Your task to perform on an android device: Clear the shopping cart on ebay.com. Add jbl flip 4 to the cart on ebay.com Image 0: 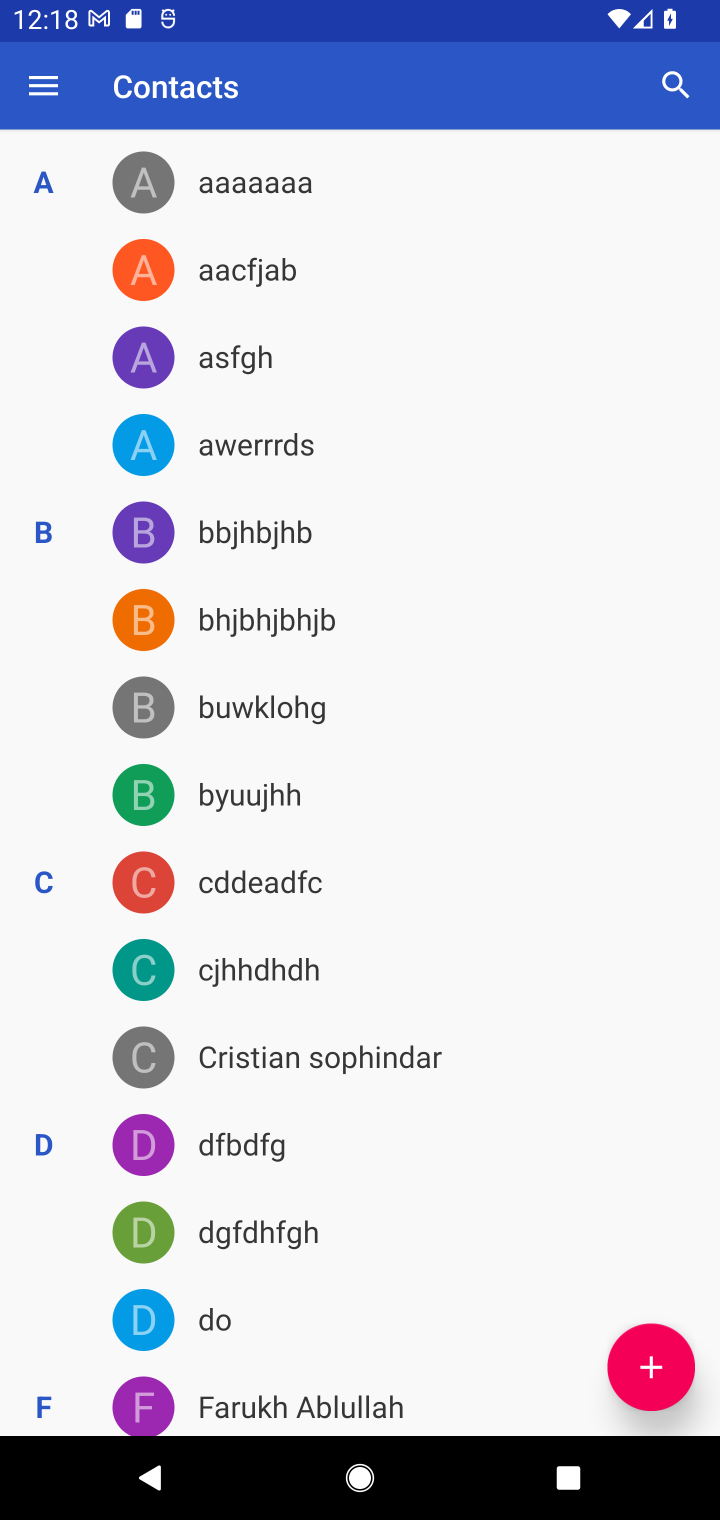
Step 0: press home button
Your task to perform on an android device: Clear the shopping cart on ebay.com. Add jbl flip 4 to the cart on ebay.com Image 1: 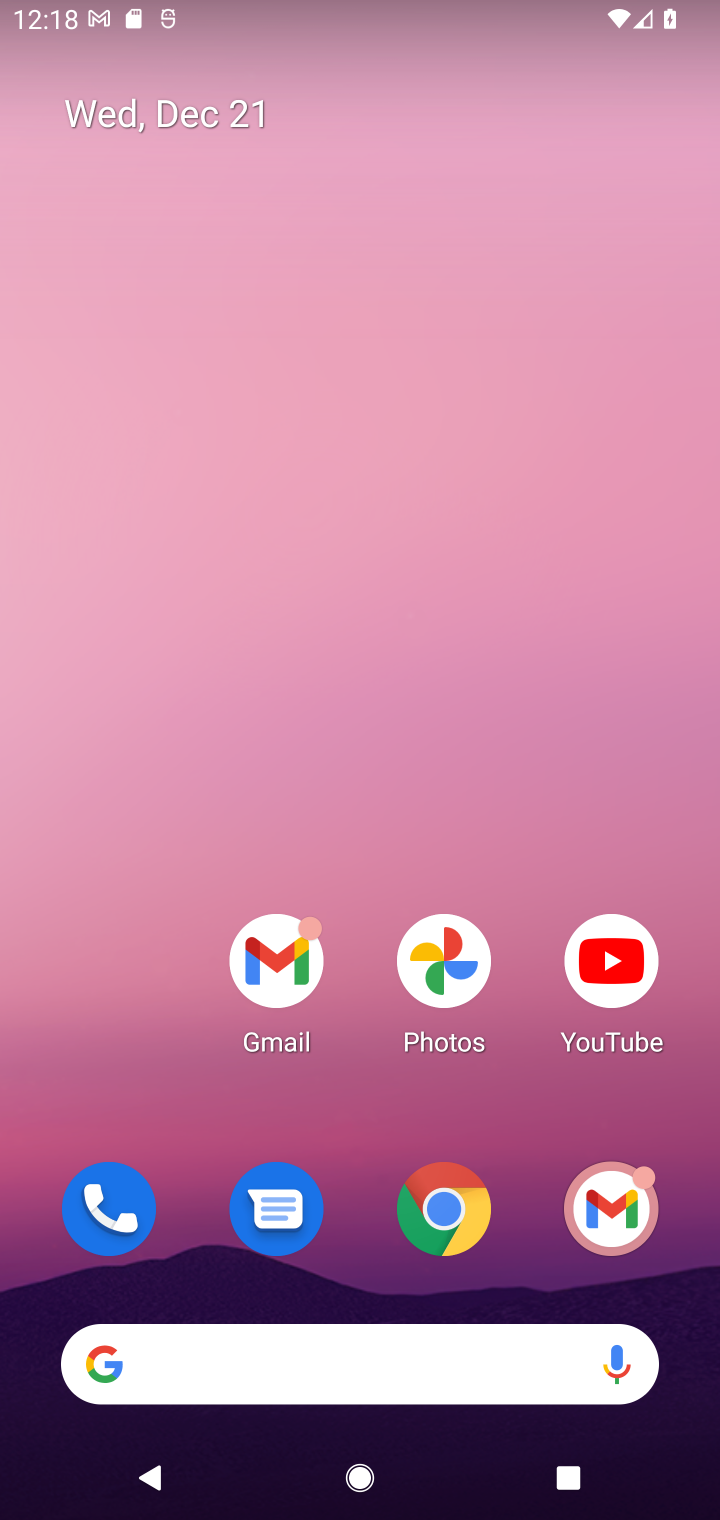
Step 1: click (455, 1222)
Your task to perform on an android device: Clear the shopping cart on ebay.com. Add jbl flip 4 to the cart on ebay.com Image 2: 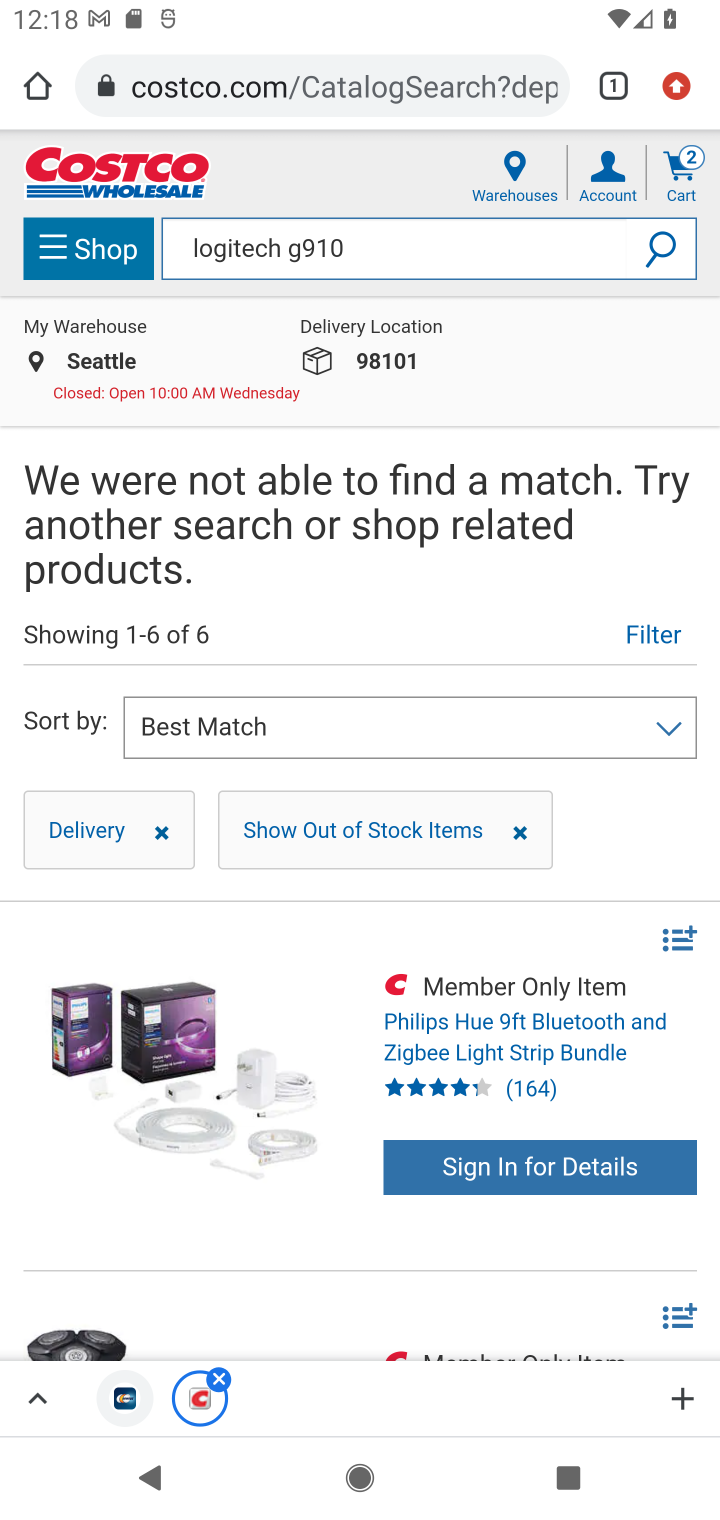
Step 2: click (222, 93)
Your task to perform on an android device: Clear the shopping cart on ebay.com. Add jbl flip 4 to the cart on ebay.com Image 3: 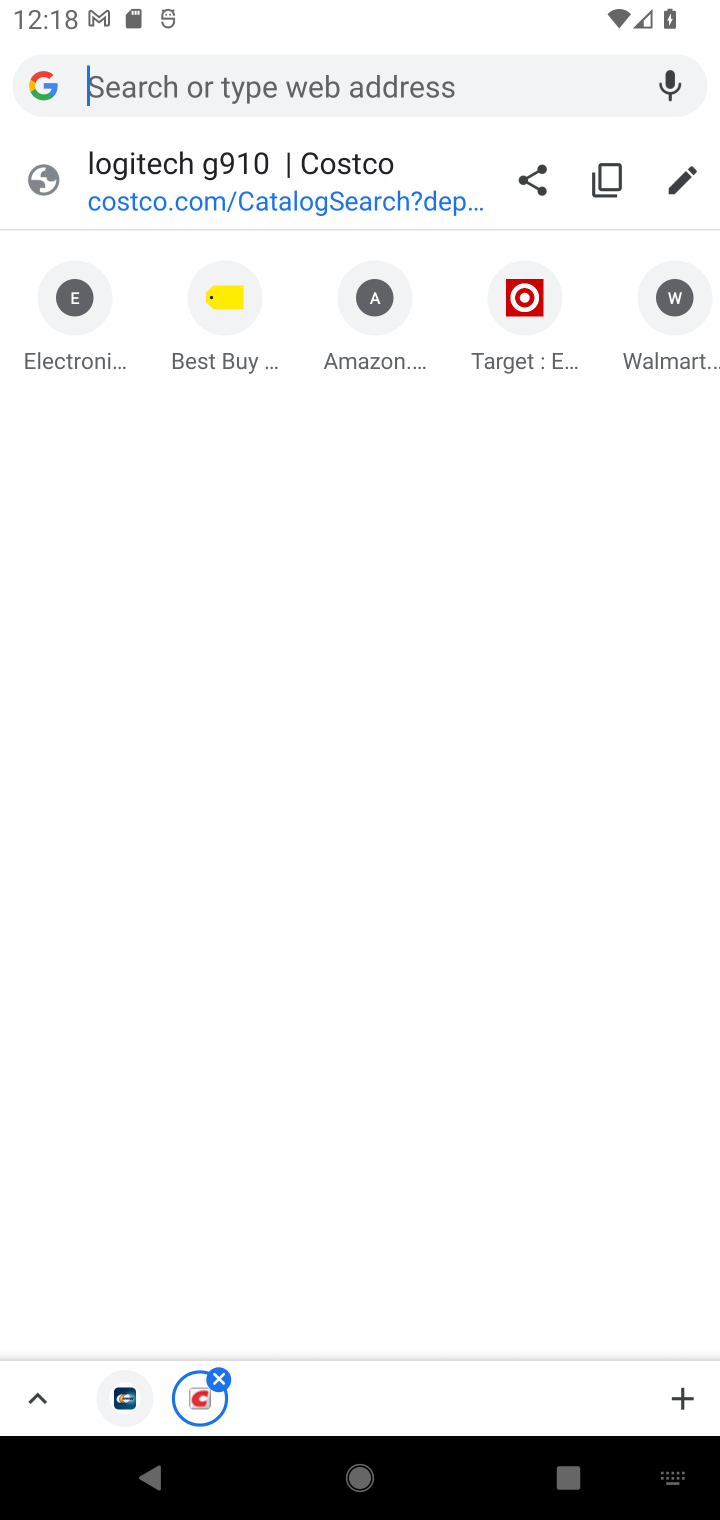
Step 3: type "ebay.com"
Your task to perform on an android device: Clear the shopping cart on ebay.com. Add jbl flip 4 to the cart on ebay.com Image 4: 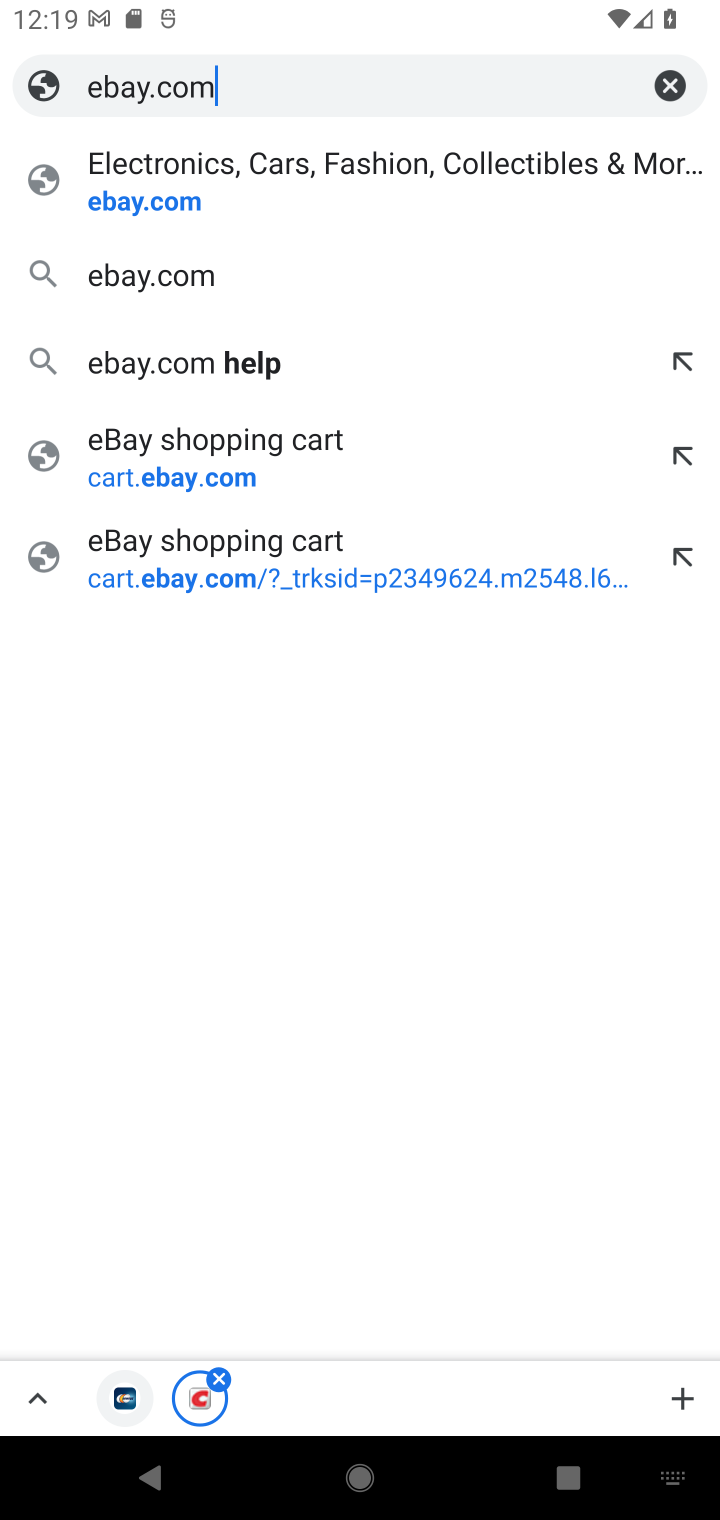
Step 4: click (125, 217)
Your task to perform on an android device: Clear the shopping cart on ebay.com. Add jbl flip 4 to the cart on ebay.com Image 5: 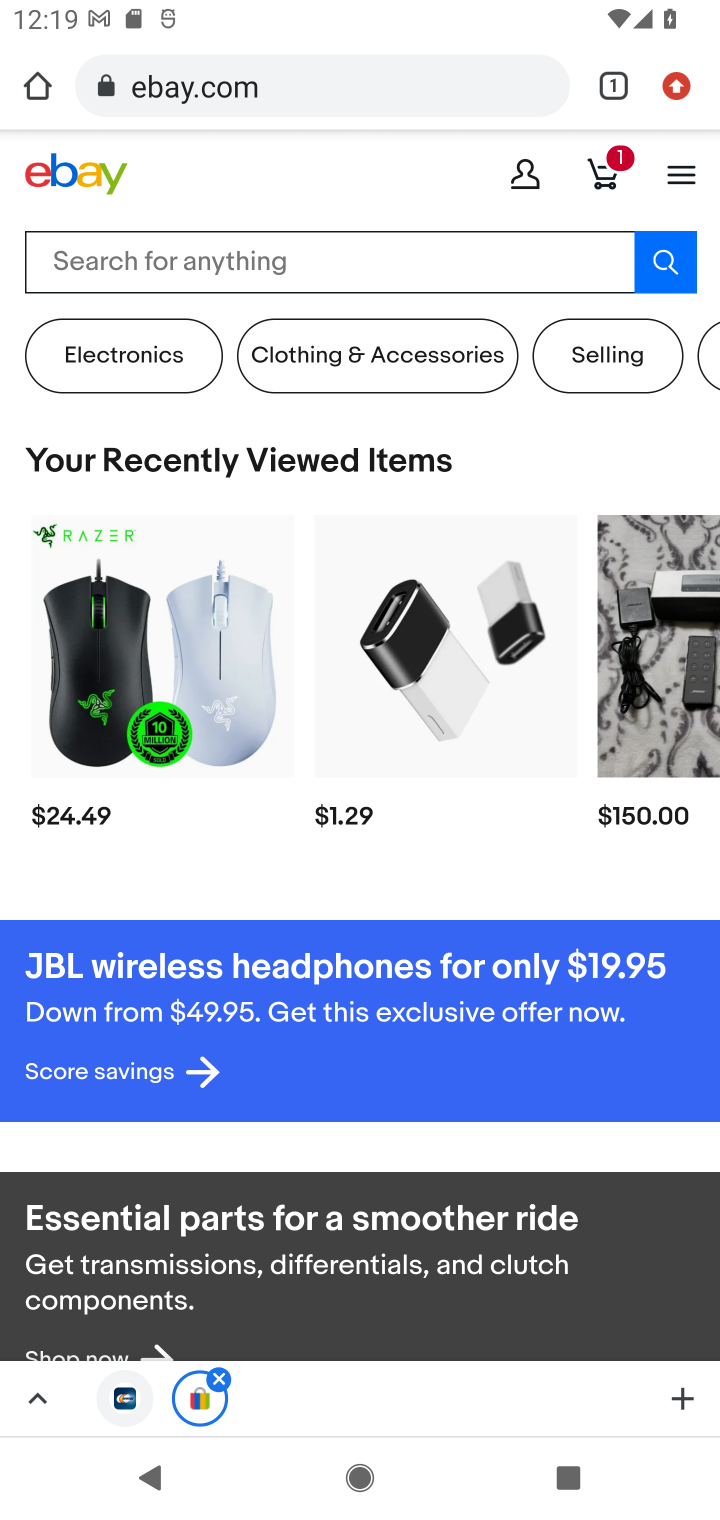
Step 5: click (608, 184)
Your task to perform on an android device: Clear the shopping cart on ebay.com. Add jbl flip 4 to the cart on ebay.com Image 6: 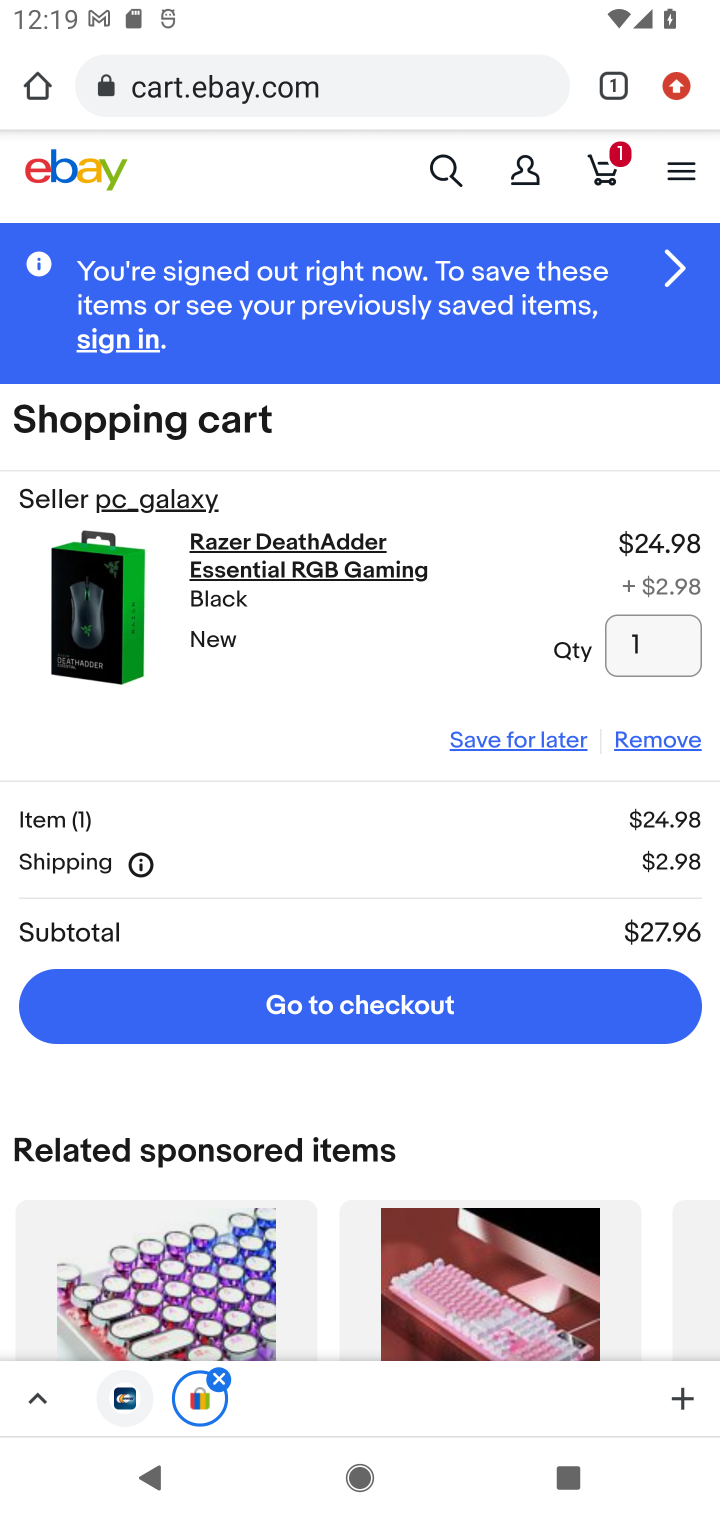
Step 6: click (669, 753)
Your task to perform on an android device: Clear the shopping cart on ebay.com. Add jbl flip 4 to the cart on ebay.com Image 7: 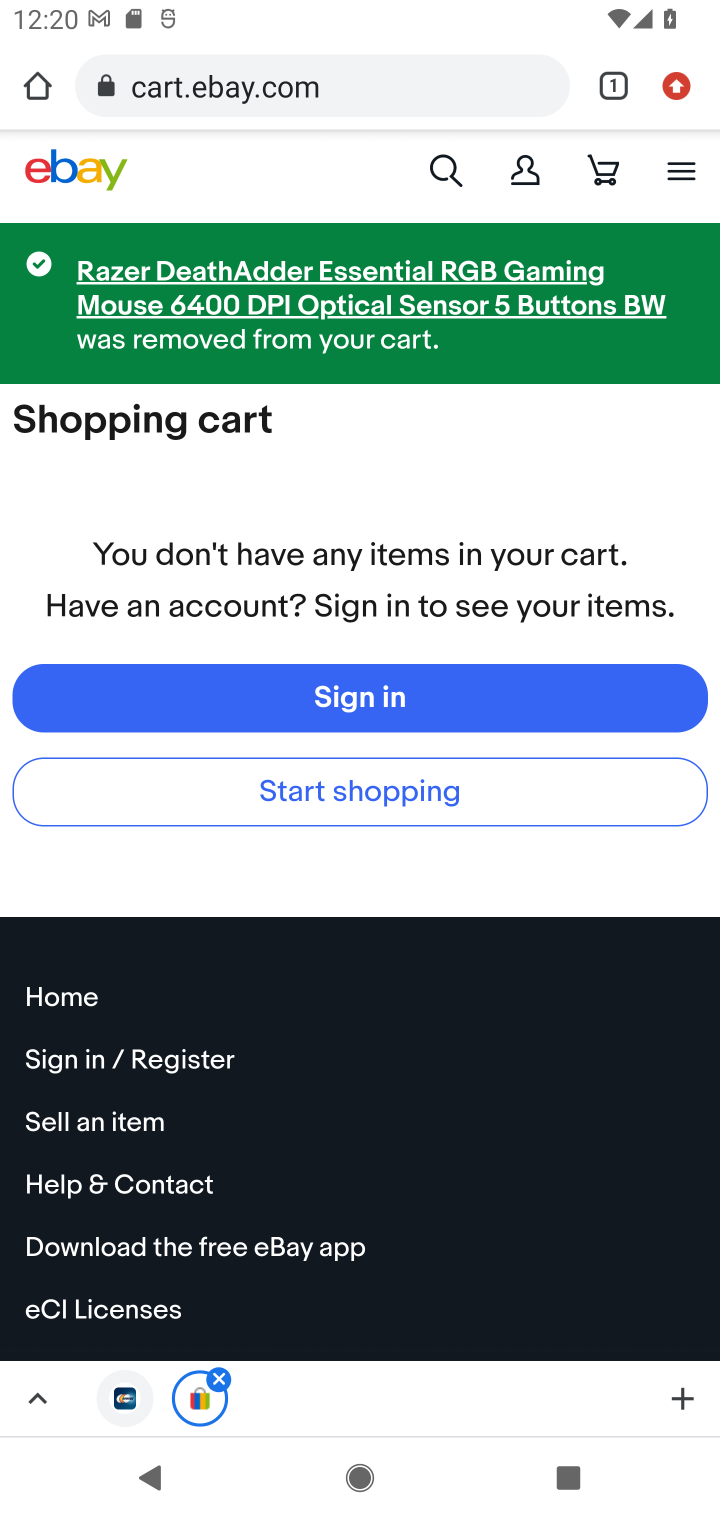
Step 7: click (437, 180)
Your task to perform on an android device: Clear the shopping cart on ebay.com. Add jbl flip 4 to the cart on ebay.com Image 8: 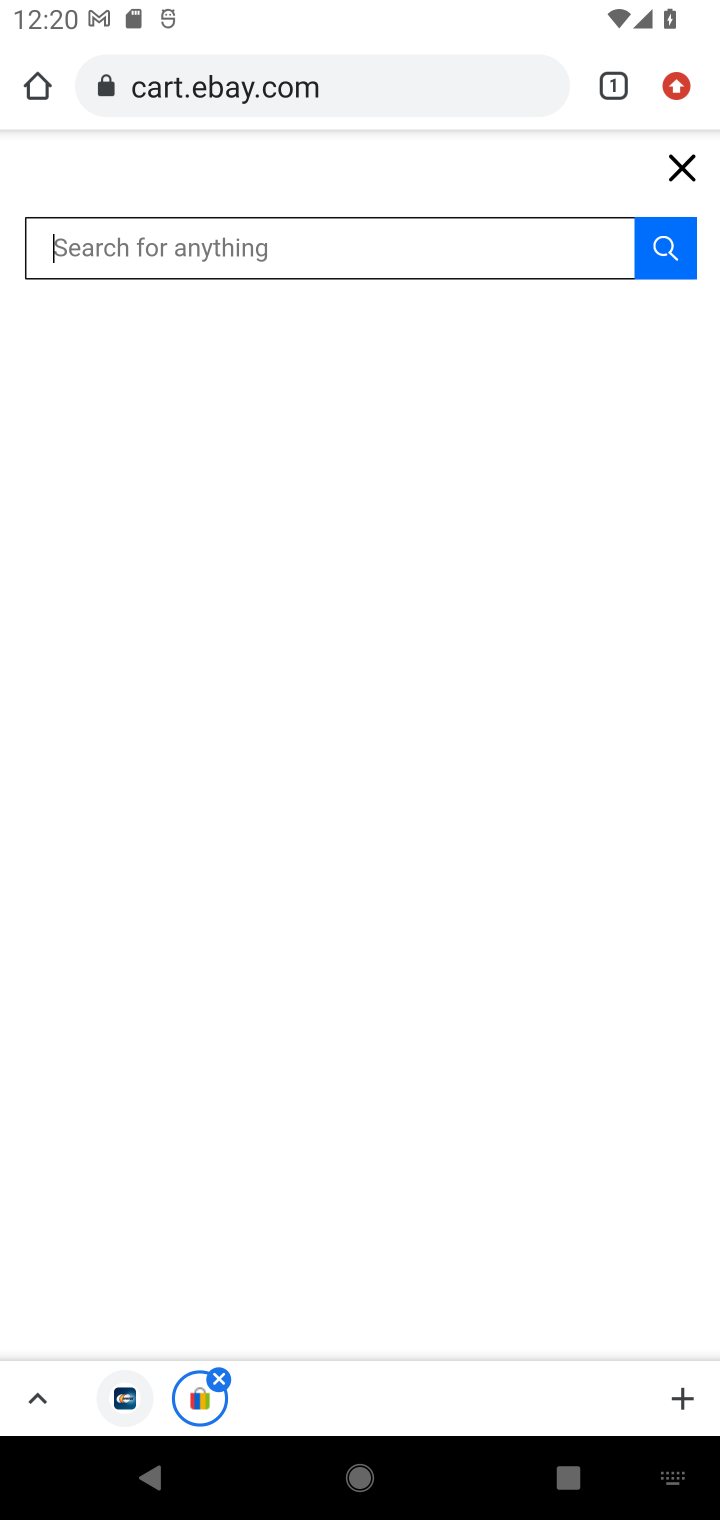
Step 8: type "jbl flip 4"
Your task to perform on an android device: Clear the shopping cart on ebay.com. Add jbl flip 4 to the cart on ebay.com Image 9: 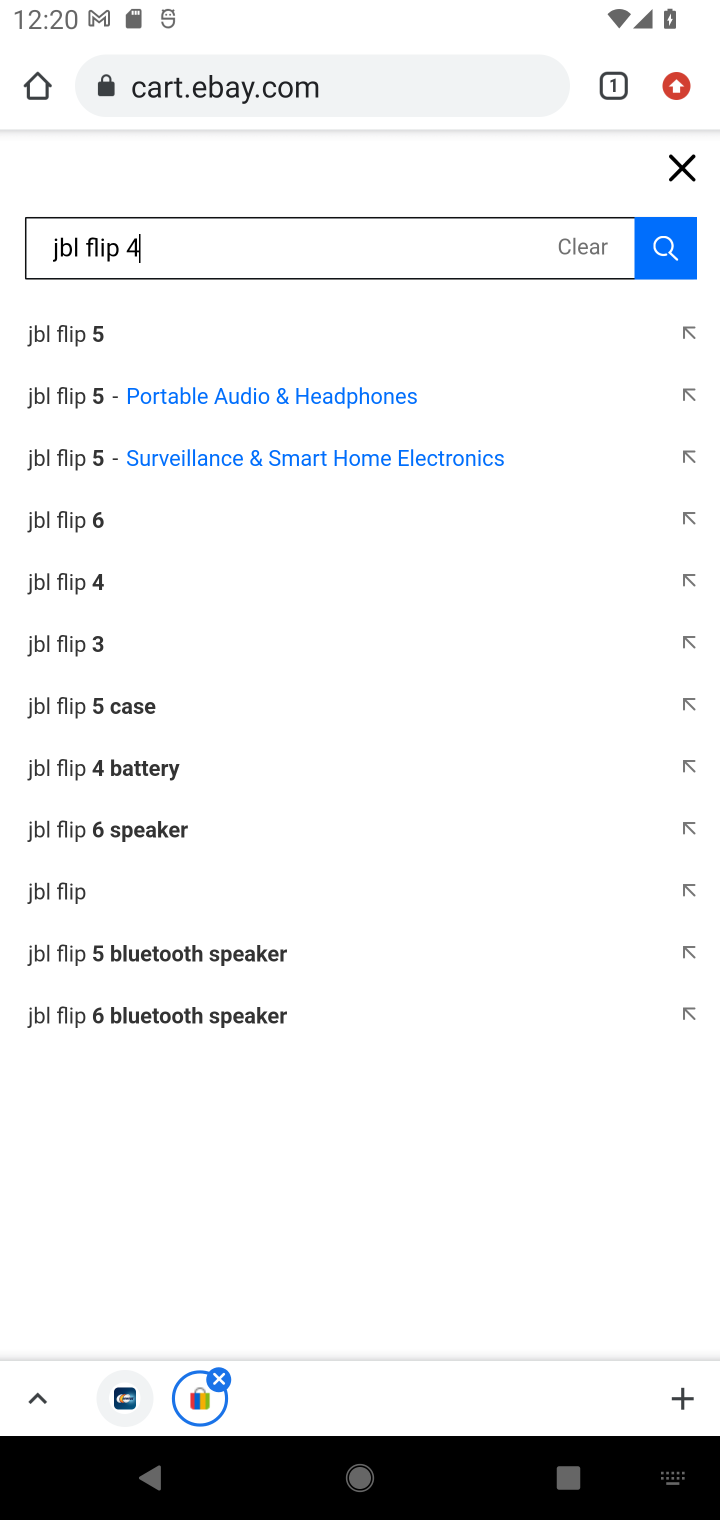
Step 9: click (70, 593)
Your task to perform on an android device: Clear the shopping cart on ebay.com. Add jbl flip 4 to the cart on ebay.com Image 10: 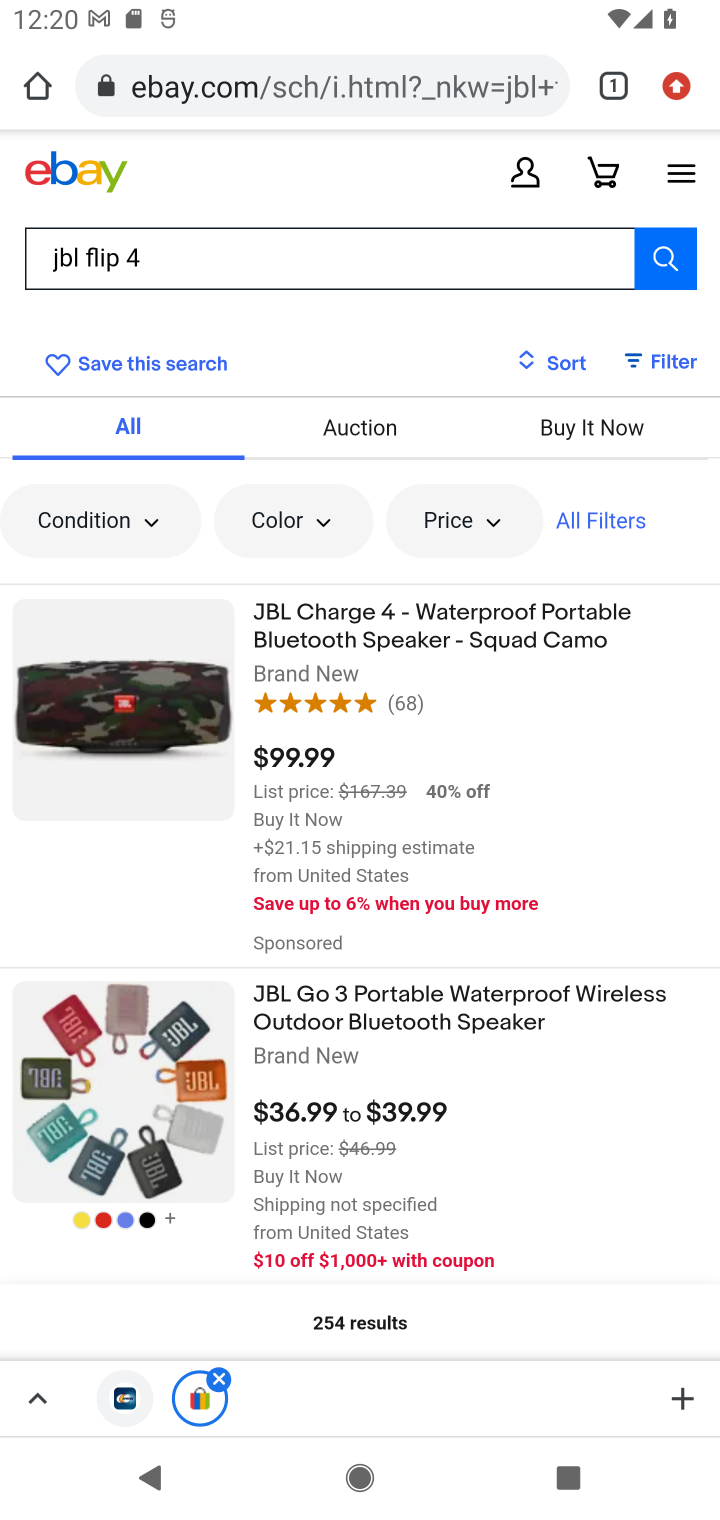
Step 10: drag from (325, 1041) to (329, 592)
Your task to perform on an android device: Clear the shopping cart on ebay.com. Add jbl flip 4 to the cart on ebay.com Image 11: 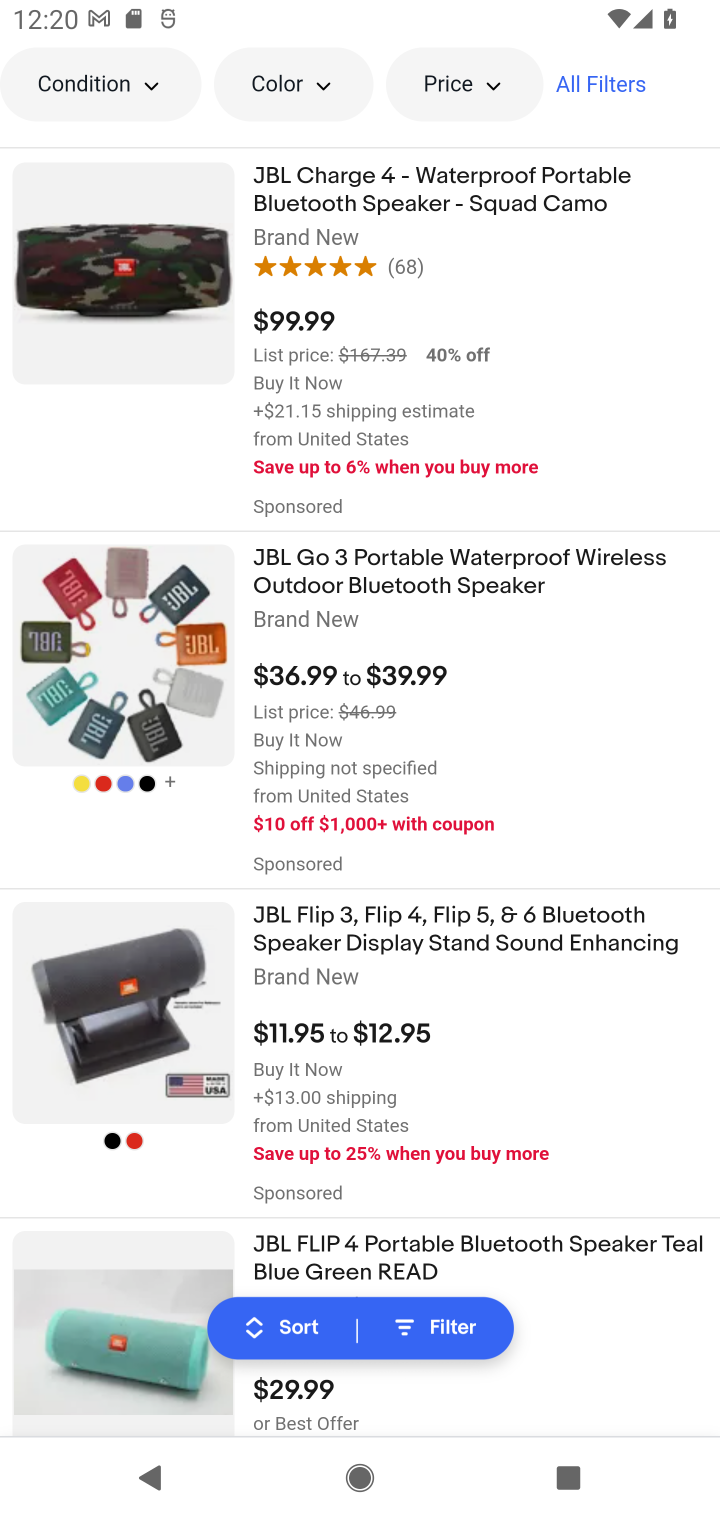
Step 11: click (324, 946)
Your task to perform on an android device: Clear the shopping cart on ebay.com. Add jbl flip 4 to the cart on ebay.com Image 12: 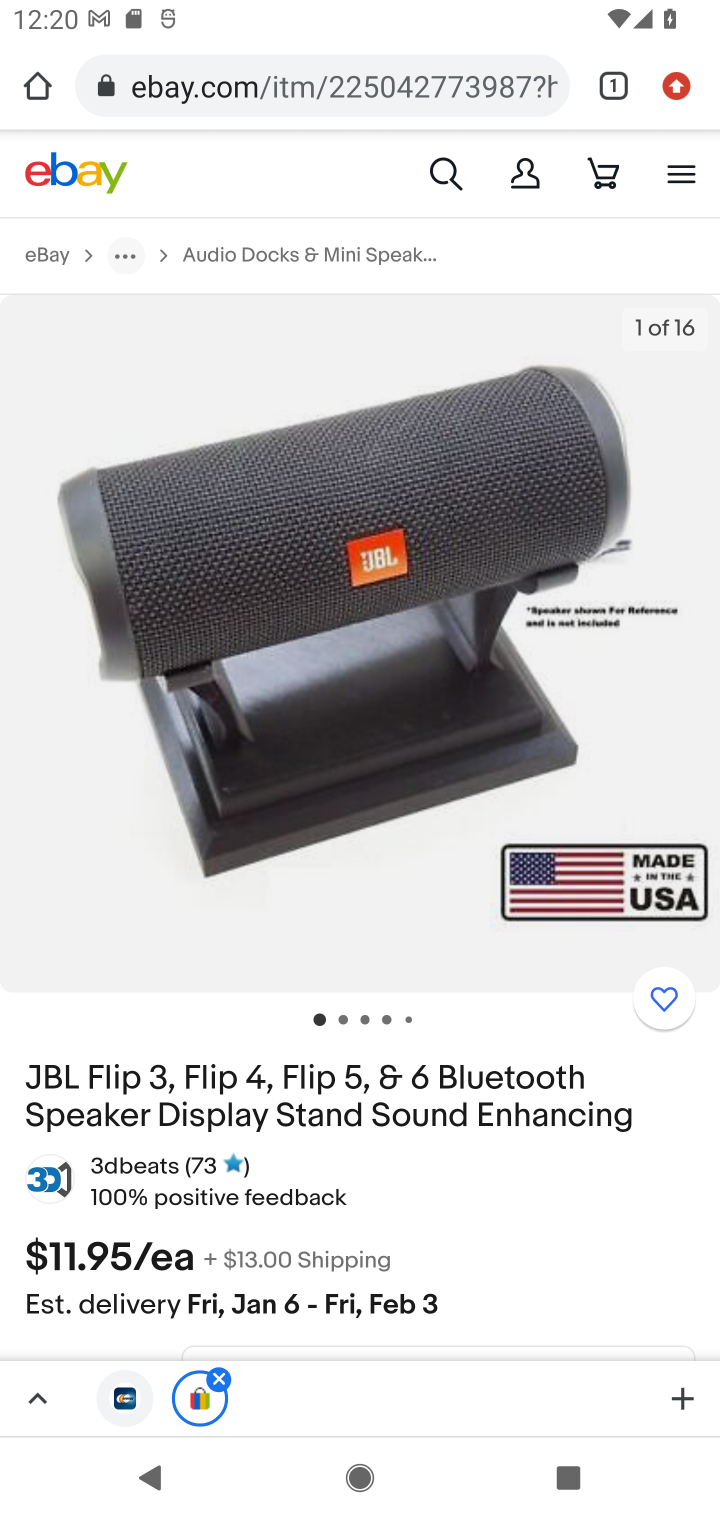
Step 12: drag from (268, 1008) to (306, 496)
Your task to perform on an android device: Clear the shopping cart on ebay.com. Add jbl flip 4 to the cart on ebay.com Image 13: 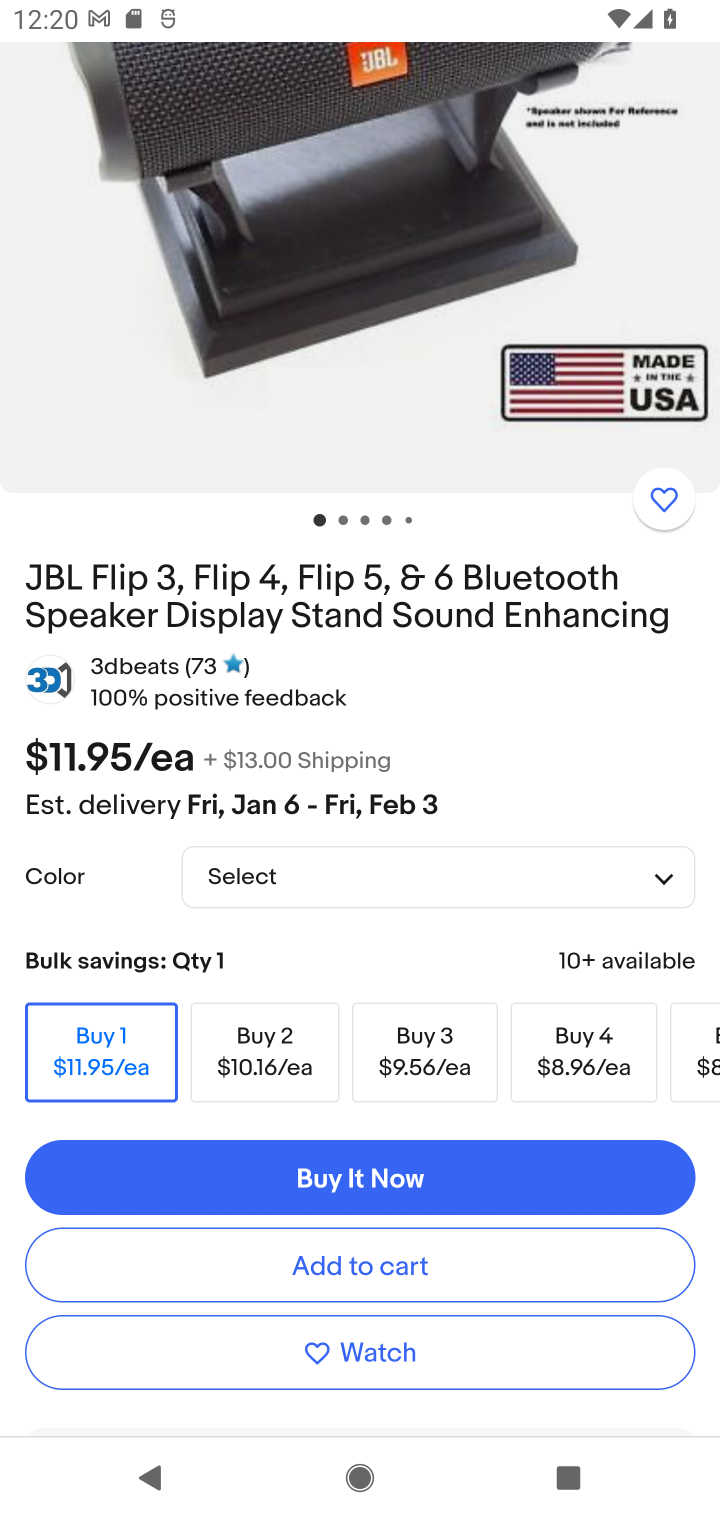
Step 13: click (279, 1253)
Your task to perform on an android device: Clear the shopping cart on ebay.com. Add jbl flip 4 to the cart on ebay.com Image 14: 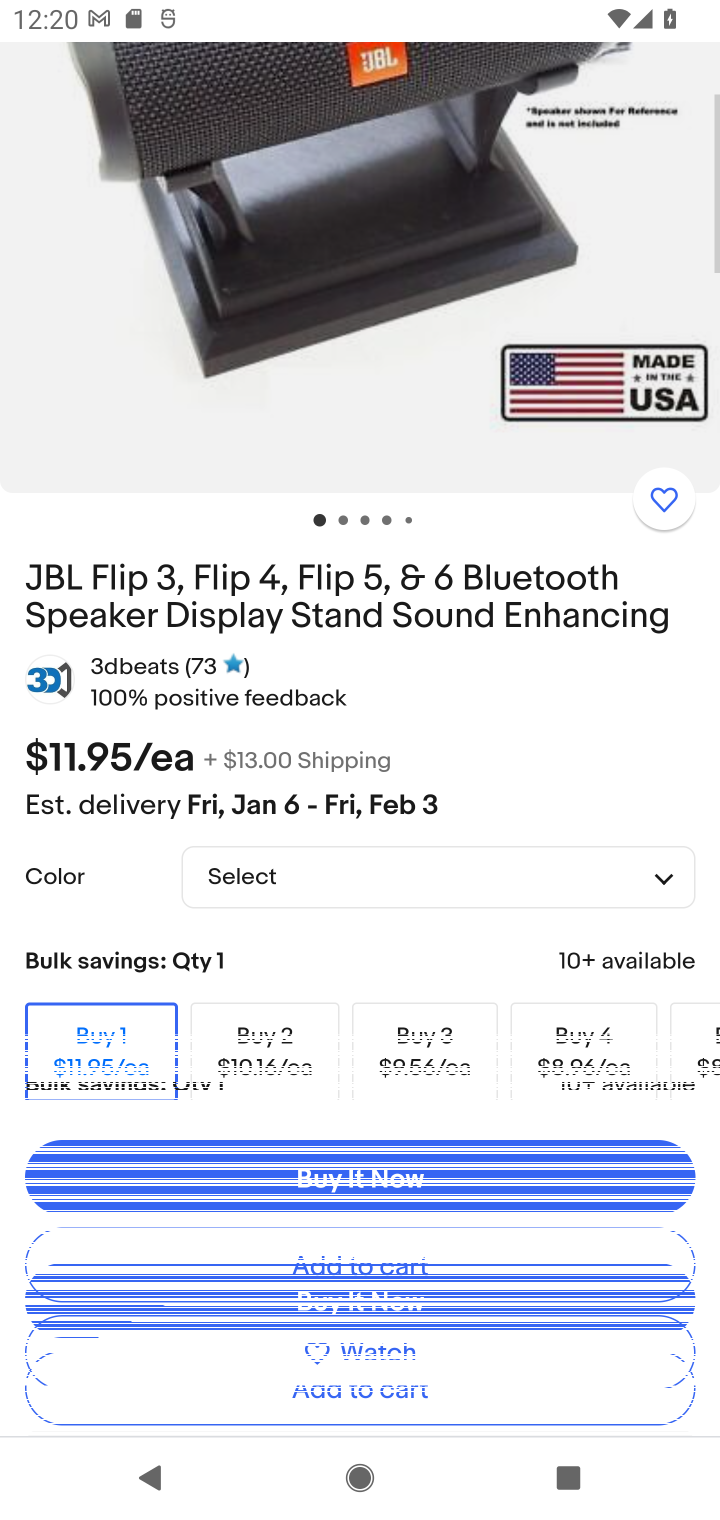
Step 14: drag from (288, 1088) to (299, 806)
Your task to perform on an android device: Clear the shopping cart on ebay.com. Add jbl flip 4 to the cart on ebay.com Image 15: 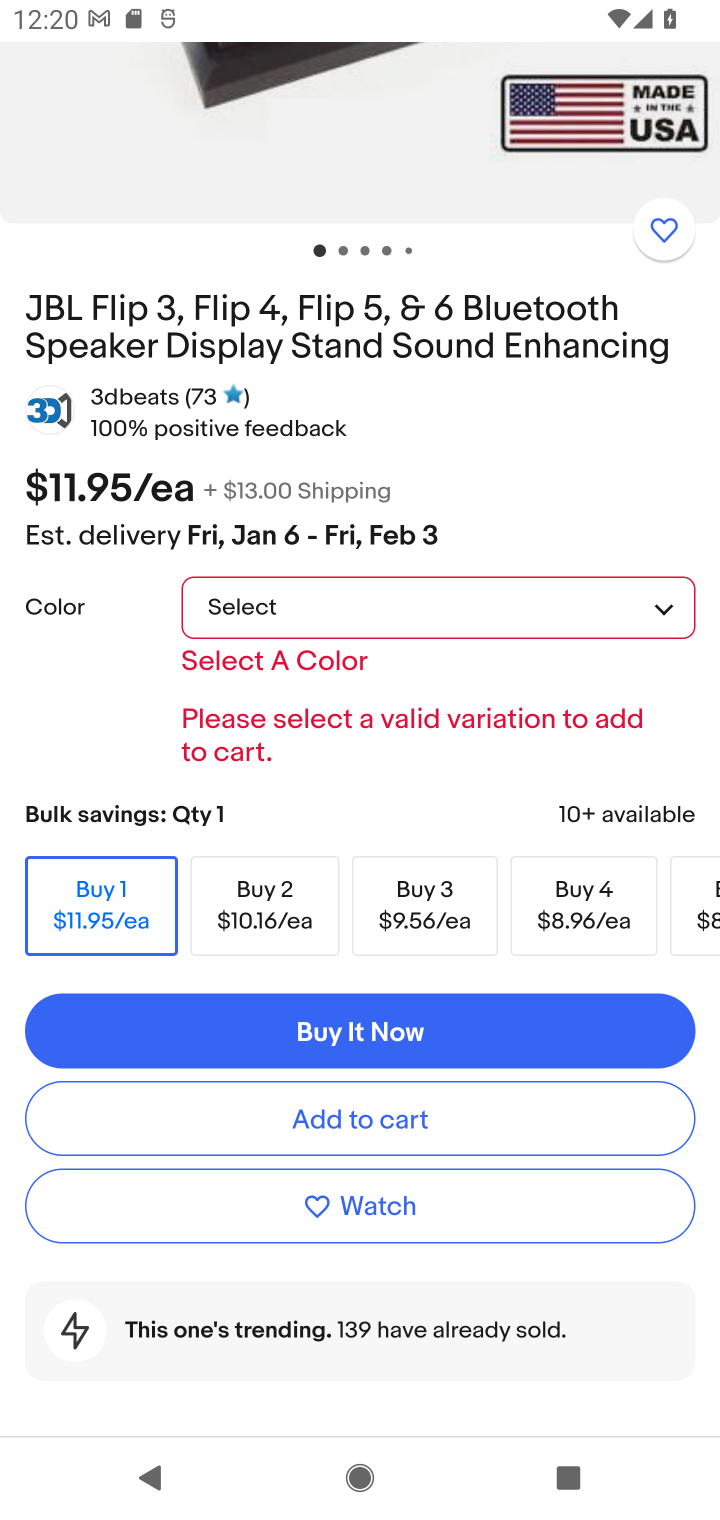
Step 15: click (664, 611)
Your task to perform on an android device: Clear the shopping cart on ebay.com. Add jbl flip 4 to the cart on ebay.com Image 16: 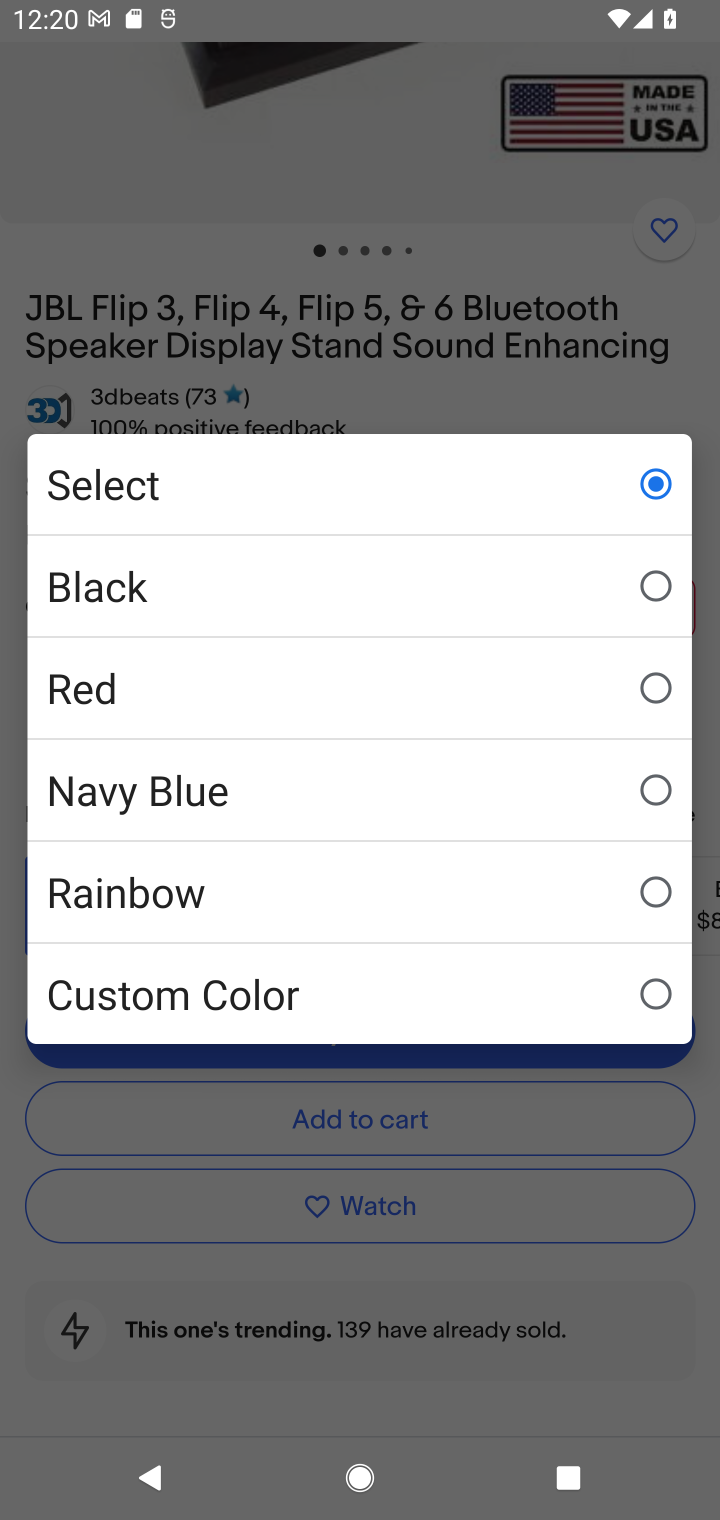
Step 16: click (109, 600)
Your task to perform on an android device: Clear the shopping cart on ebay.com. Add jbl flip 4 to the cart on ebay.com Image 17: 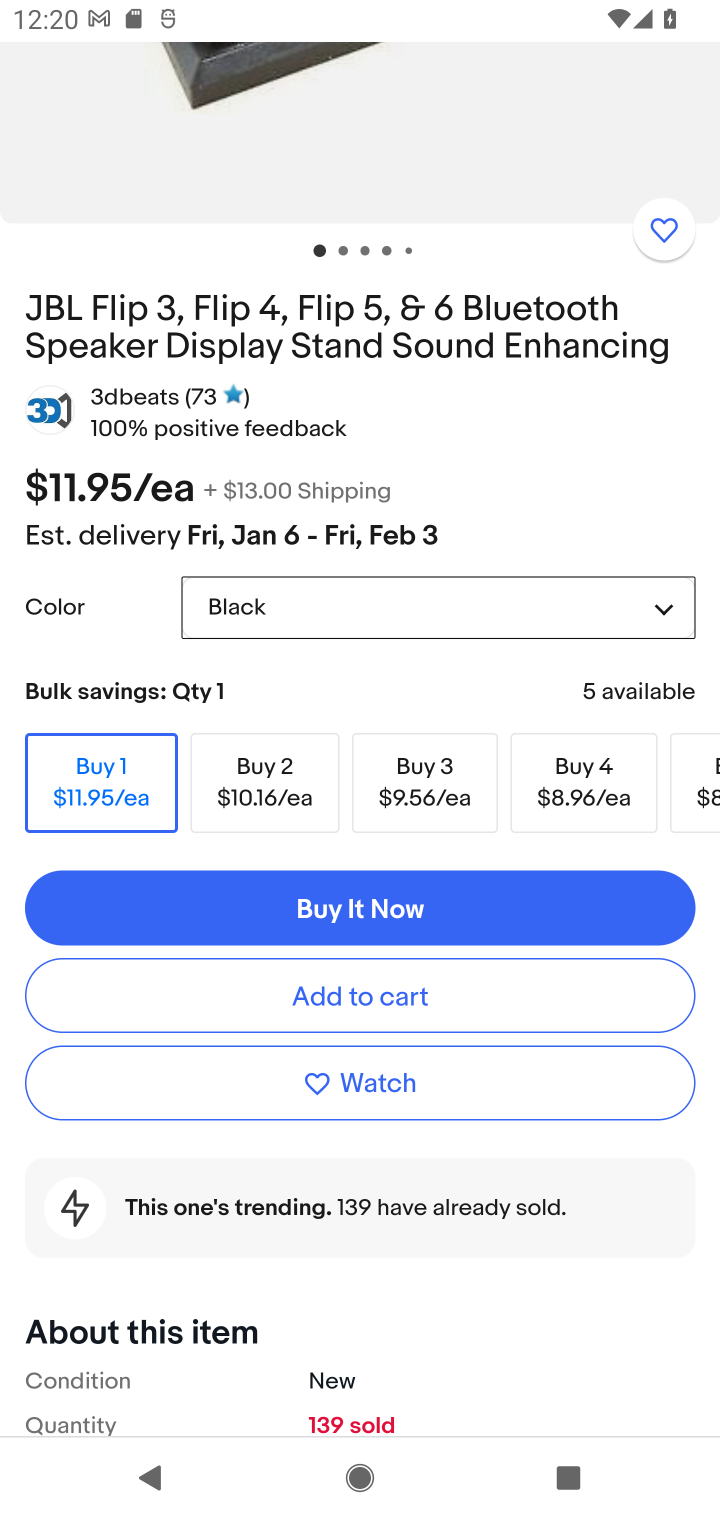
Step 17: click (291, 997)
Your task to perform on an android device: Clear the shopping cart on ebay.com. Add jbl flip 4 to the cart on ebay.com Image 18: 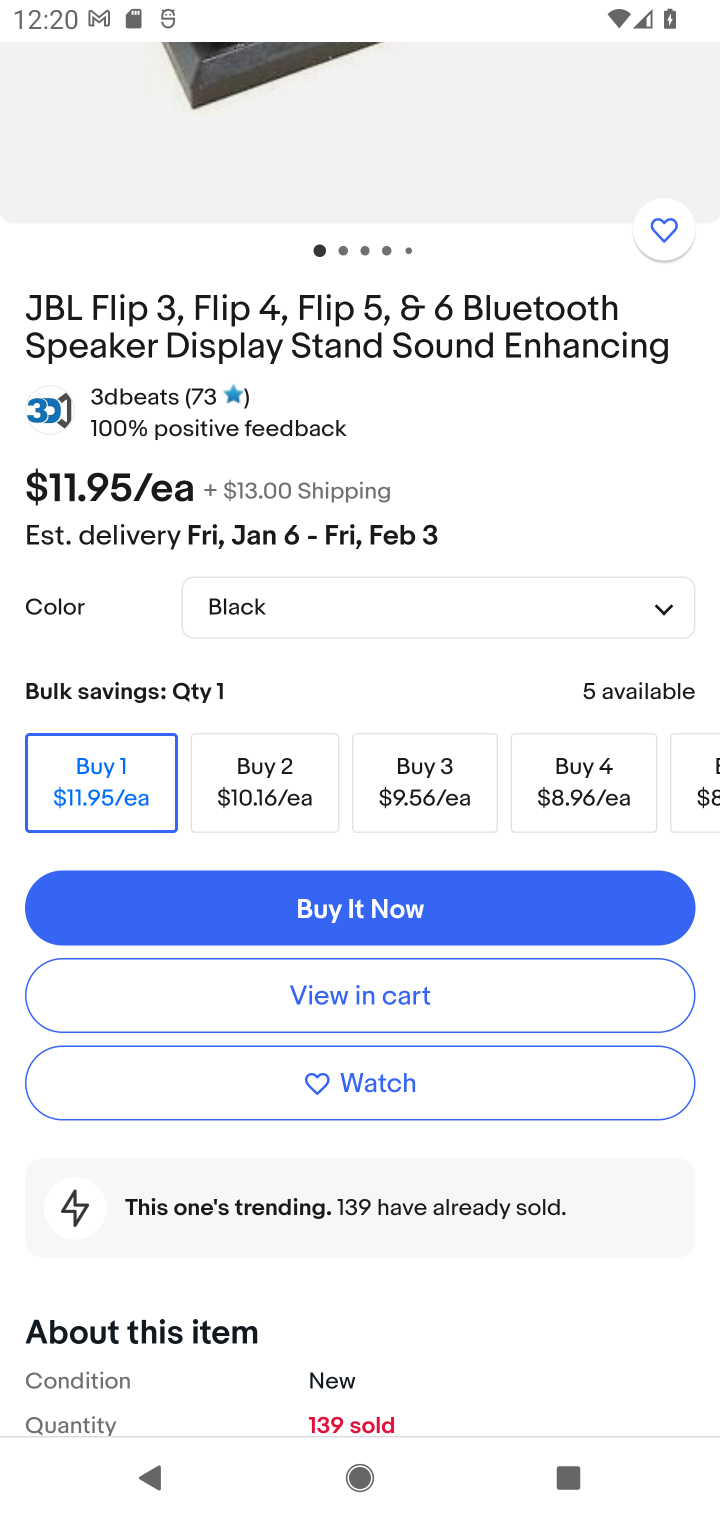
Step 18: task complete